Your task to perform on an android device: snooze an email in the gmail app Image 0: 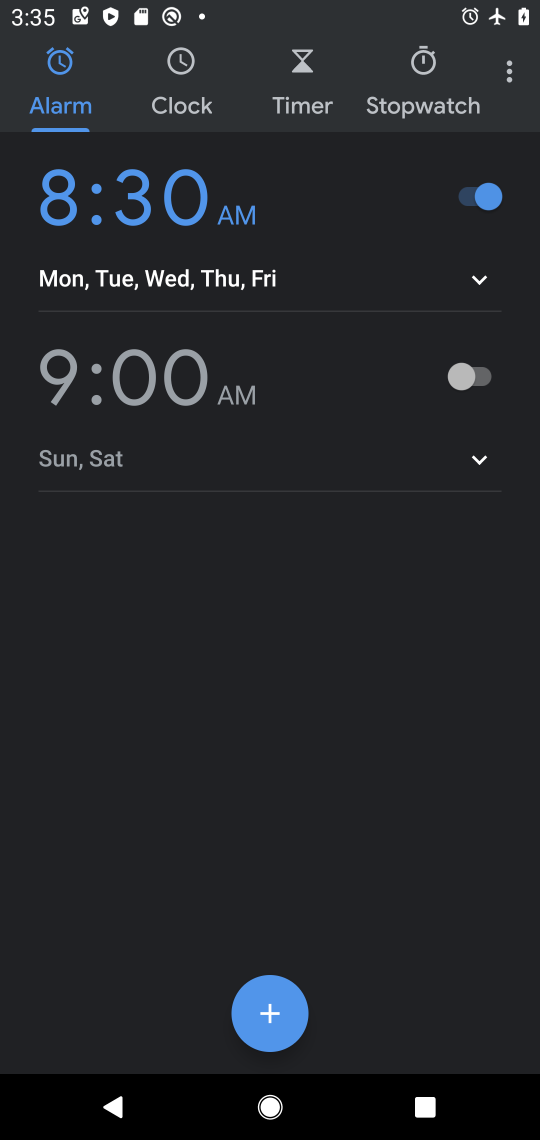
Step 0: press back button
Your task to perform on an android device: snooze an email in the gmail app Image 1: 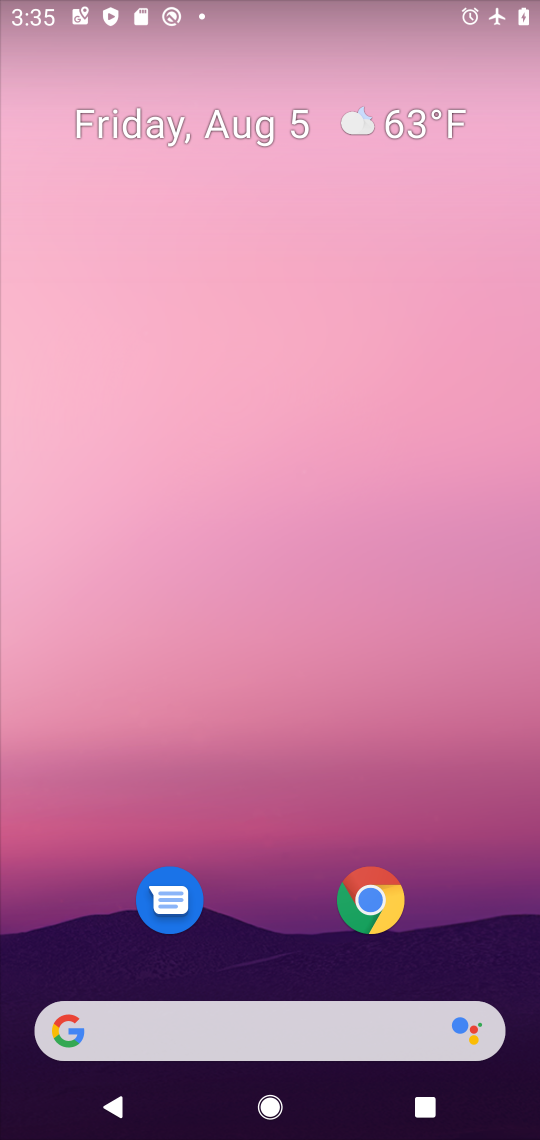
Step 1: drag from (268, 929) to (421, 112)
Your task to perform on an android device: snooze an email in the gmail app Image 2: 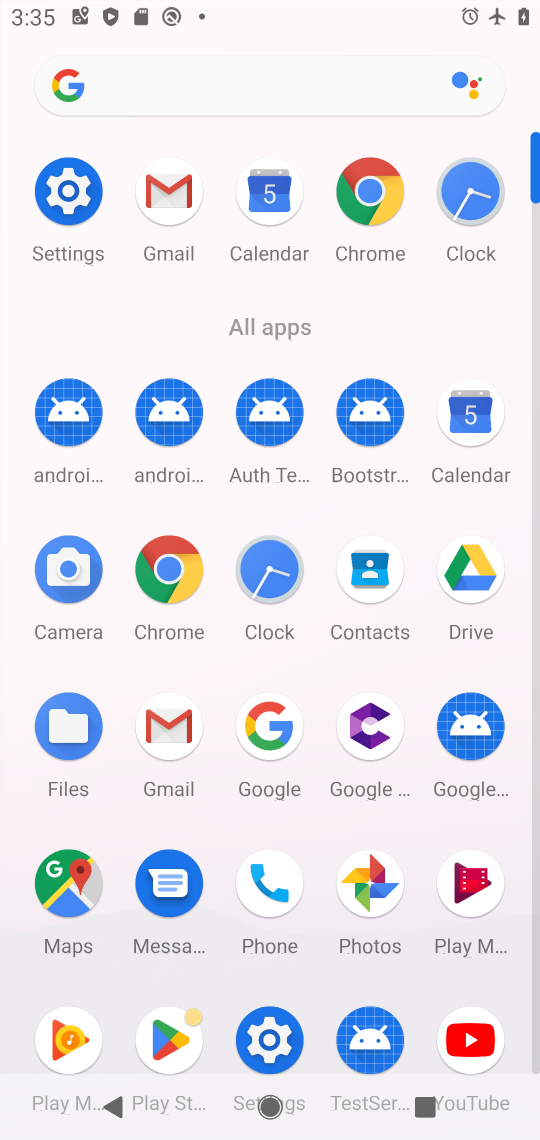
Step 2: click (160, 202)
Your task to perform on an android device: snooze an email in the gmail app Image 3: 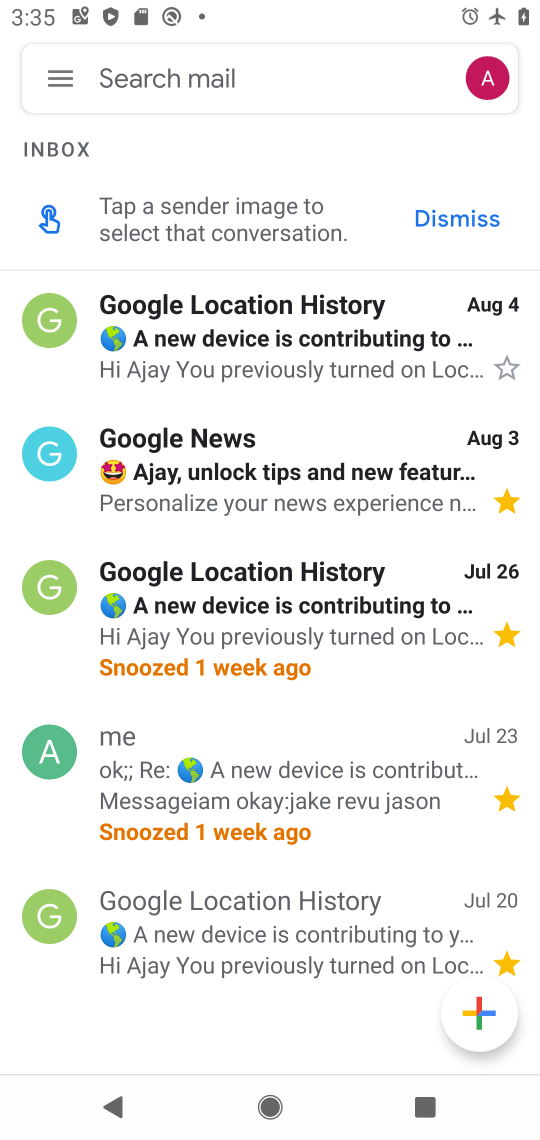
Step 3: click (46, 62)
Your task to perform on an android device: snooze an email in the gmail app Image 4: 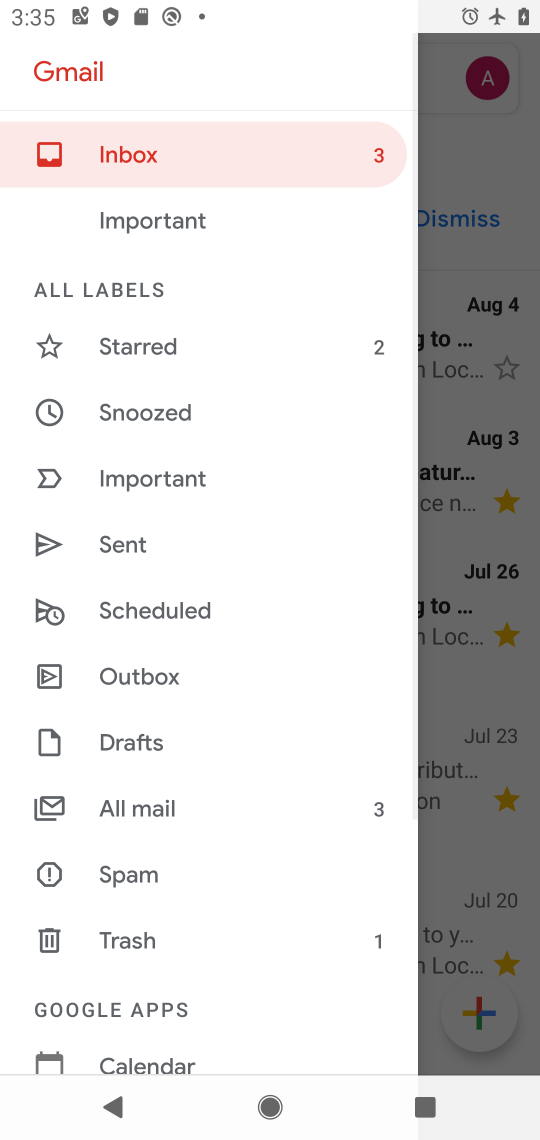
Step 4: click (128, 822)
Your task to perform on an android device: snooze an email in the gmail app Image 5: 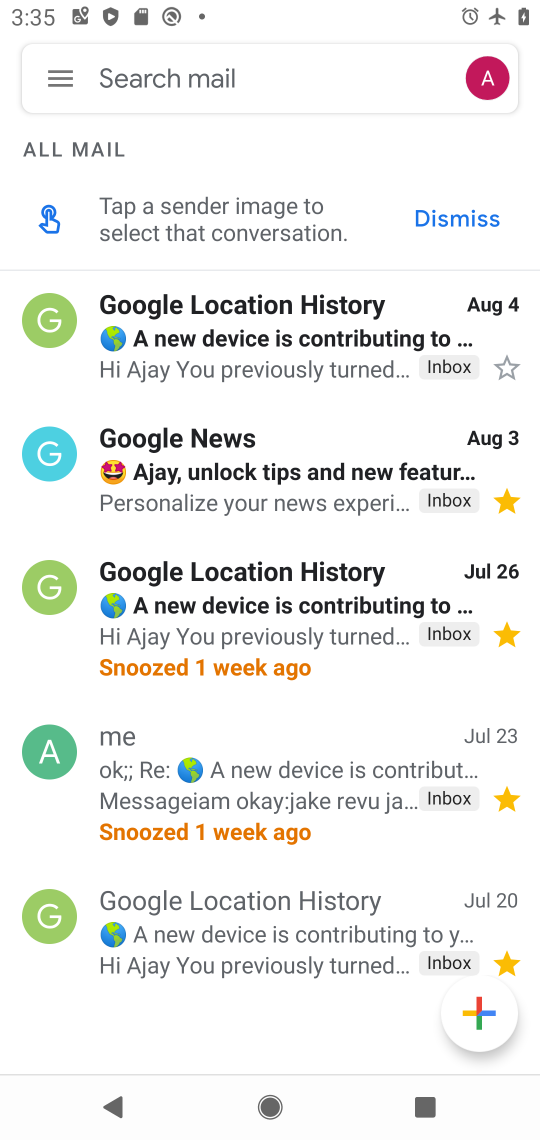
Step 5: click (288, 764)
Your task to perform on an android device: snooze an email in the gmail app Image 6: 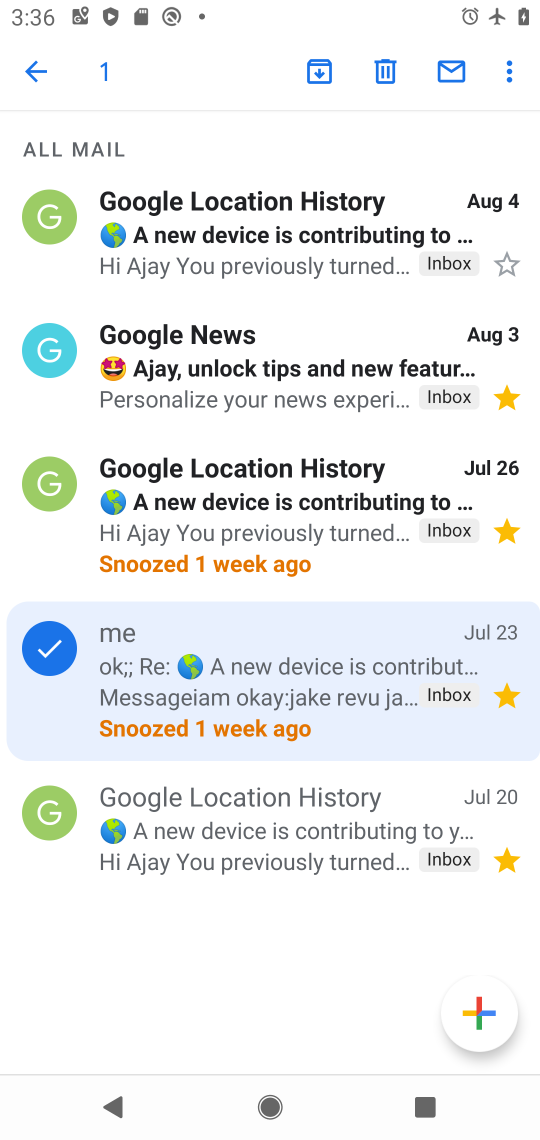
Step 6: click (512, 66)
Your task to perform on an android device: snooze an email in the gmail app Image 7: 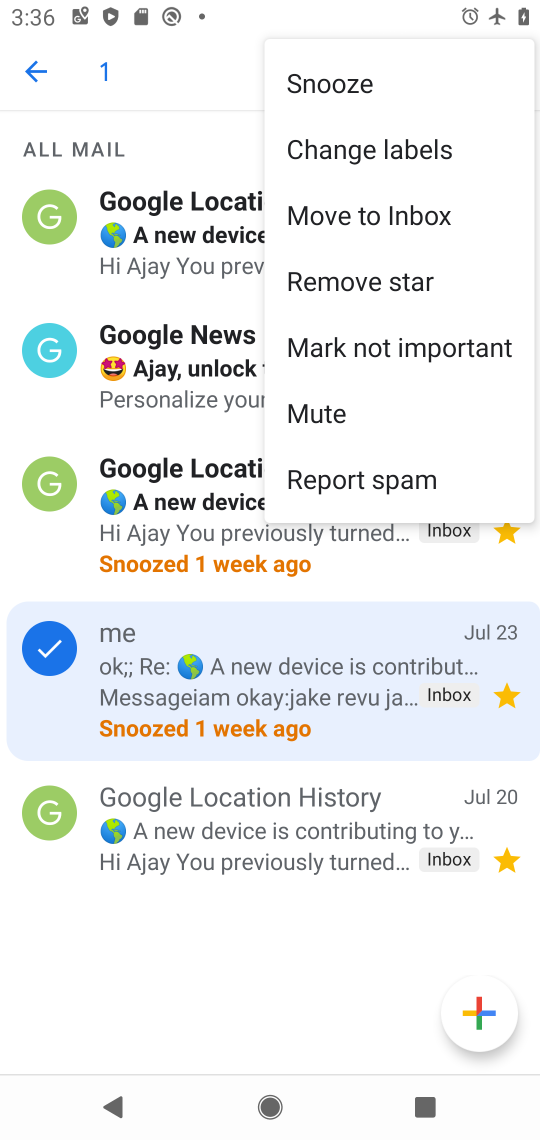
Step 7: click (294, 67)
Your task to perform on an android device: snooze an email in the gmail app Image 8: 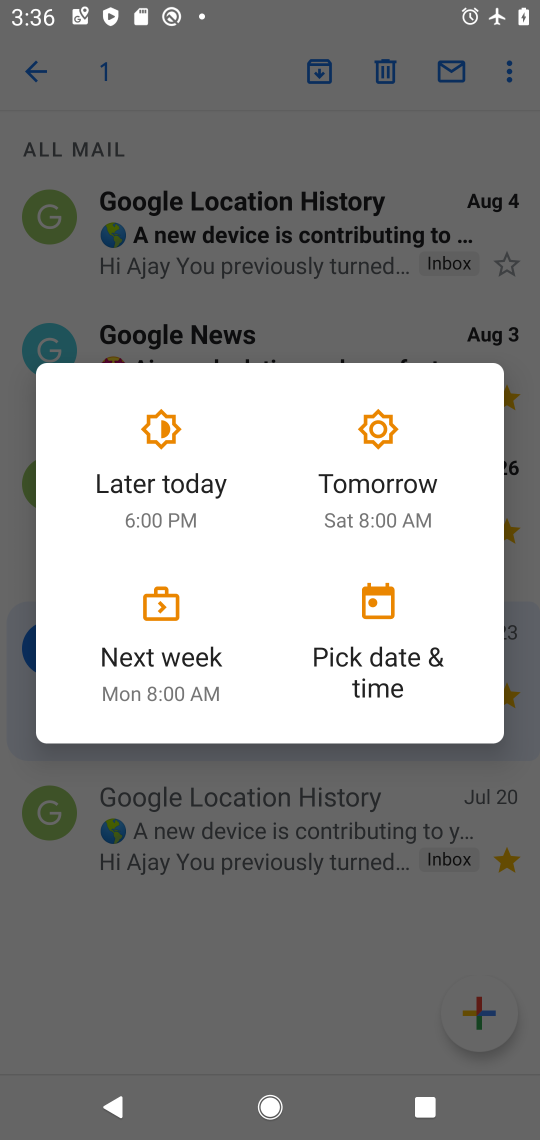
Step 8: click (406, 481)
Your task to perform on an android device: snooze an email in the gmail app Image 9: 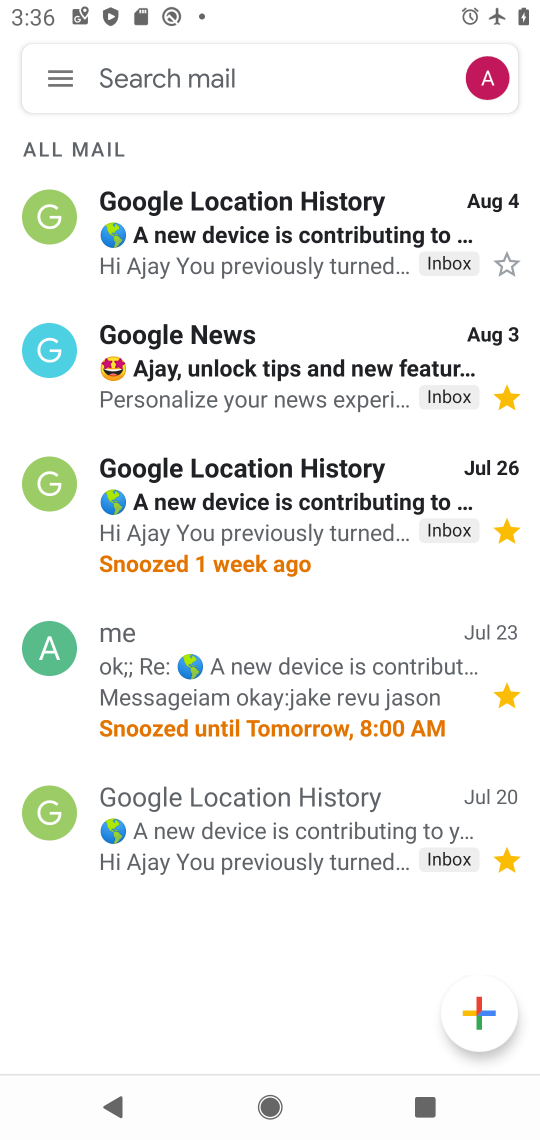
Step 9: task complete